Your task to perform on an android device: Open the phone app and click the voicemail tab. Image 0: 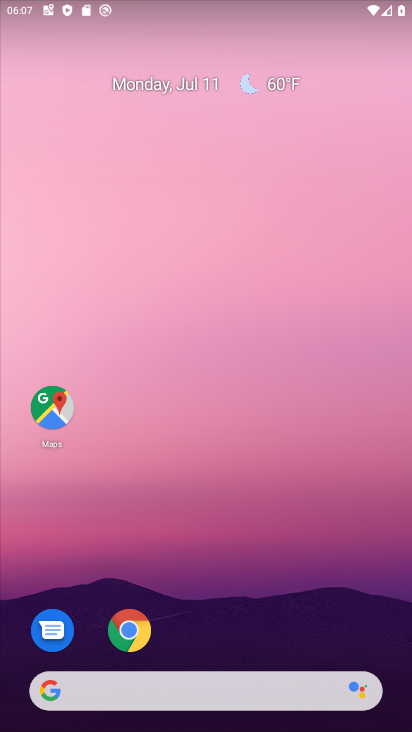
Step 0: drag from (200, 618) to (194, 157)
Your task to perform on an android device: Open the phone app and click the voicemail tab. Image 1: 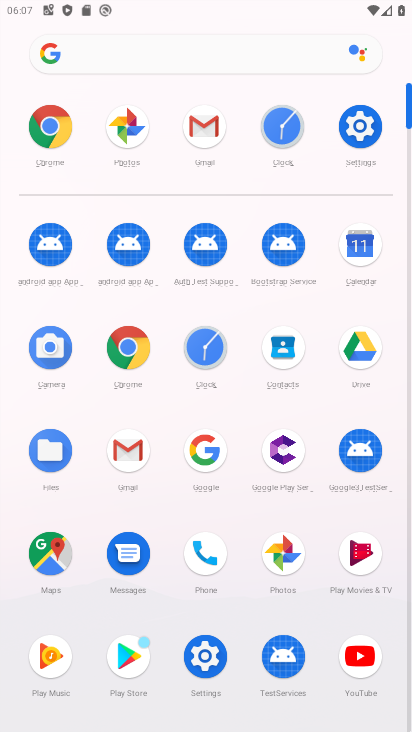
Step 1: click (202, 563)
Your task to perform on an android device: Open the phone app and click the voicemail tab. Image 2: 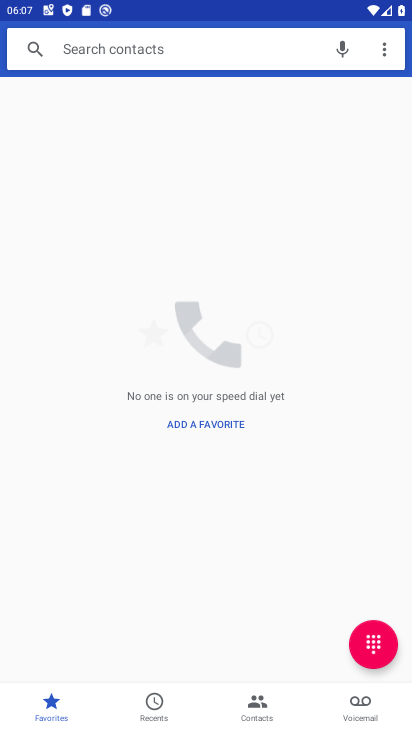
Step 2: click (202, 563)
Your task to perform on an android device: Open the phone app and click the voicemail tab. Image 3: 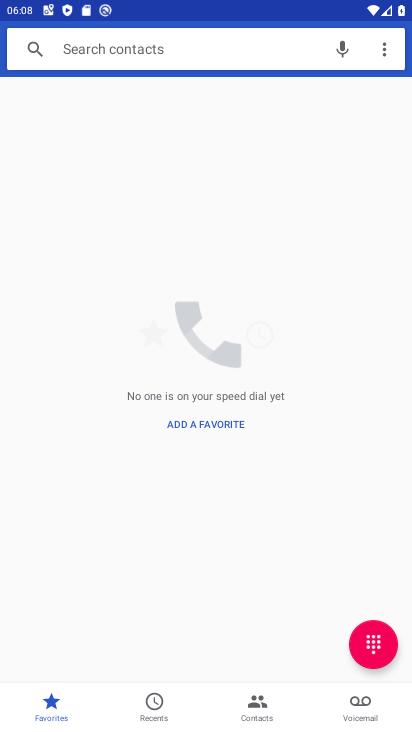
Step 3: click (356, 708)
Your task to perform on an android device: Open the phone app and click the voicemail tab. Image 4: 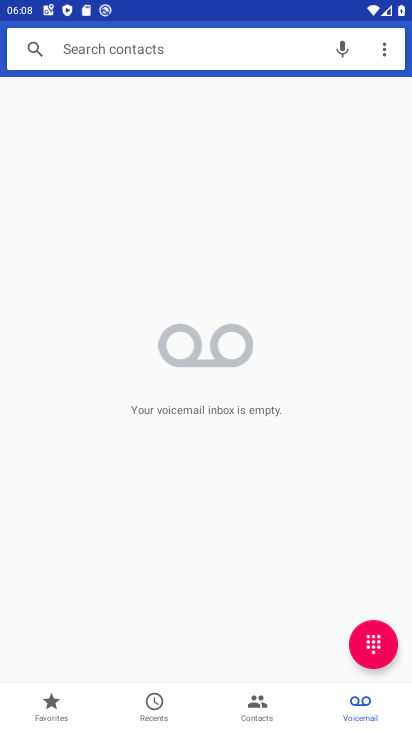
Step 4: task complete